Your task to perform on an android device: open sync settings in chrome Image 0: 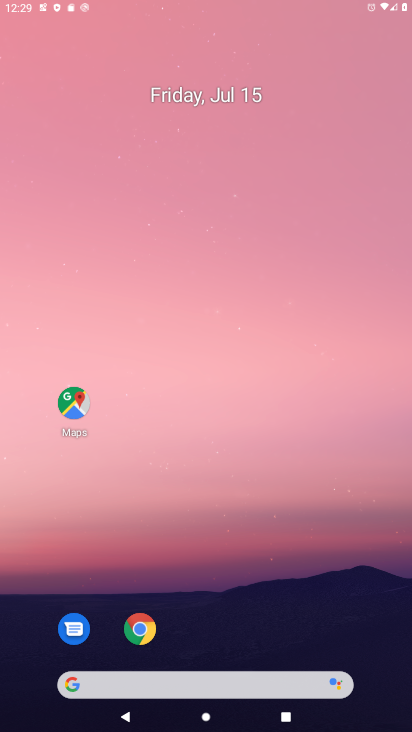
Step 0: press home button
Your task to perform on an android device: open sync settings in chrome Image 1: 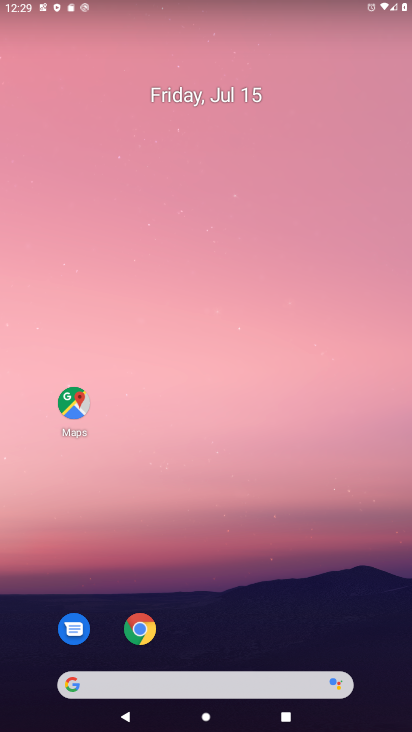
Step 1: drag from (283, 646) to (258, 4)
Your task to perform on an android device: open sync settings in chrome Image 2: 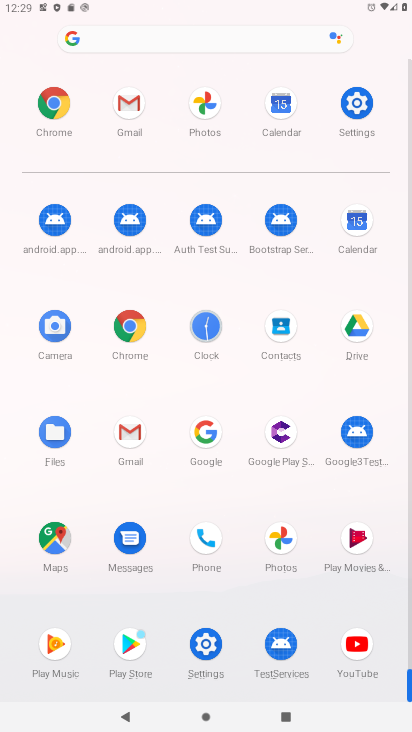
Step 2: click (44, 109)
Your task to perform on an android device: open sync settings in chrome Image 3: 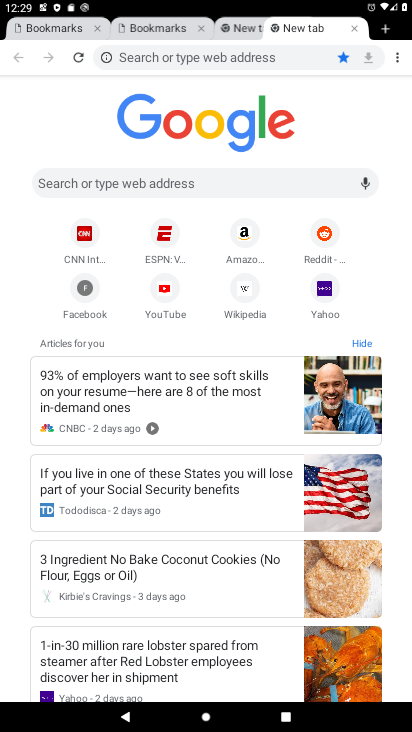
Step 3: drag from (391, 61) to (295, 269)
Your task to perform on an android device: open sync settings in chrome Image 4: 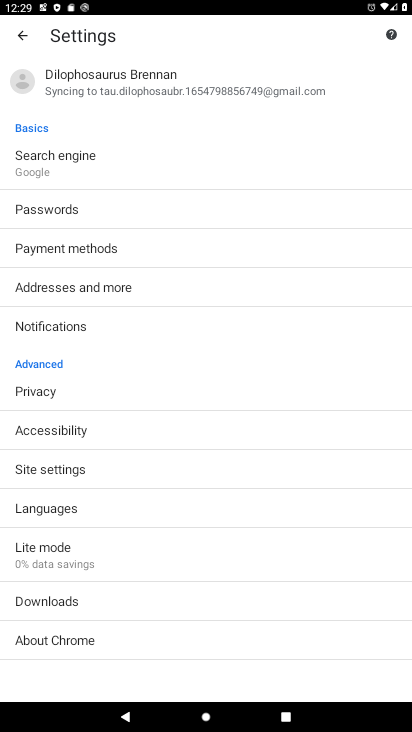
Step 4: click (144, 87)
Your task to perform on an android device: open sync settings in chrome Image 5: 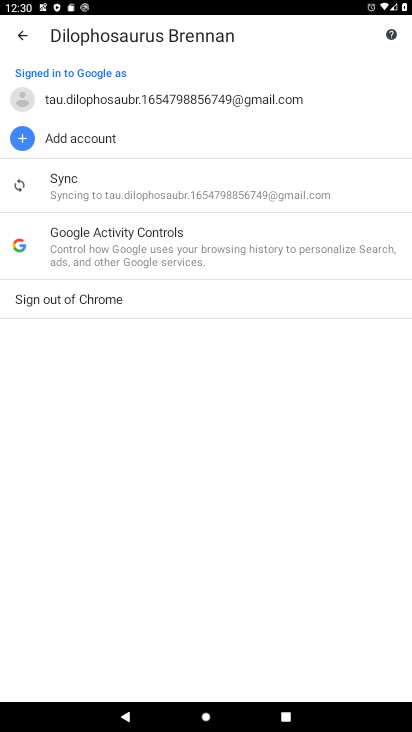
Step 5: click (83, 186)
Your task to perform on an android device: open sync settings in chrome Image 6: 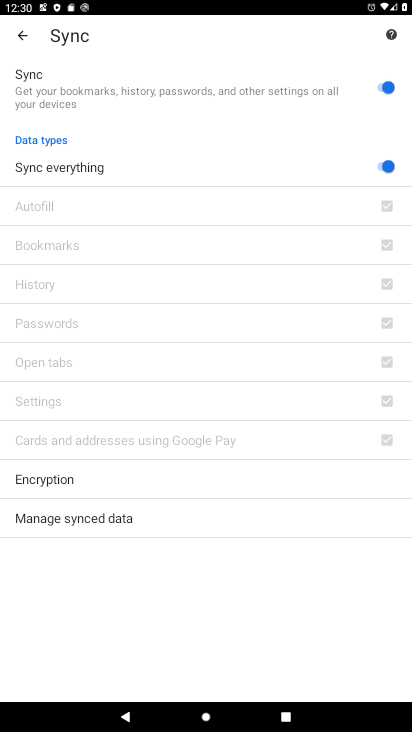
Step 6: task complete